Your task to perform on an android device: Open internet settings Image 0: 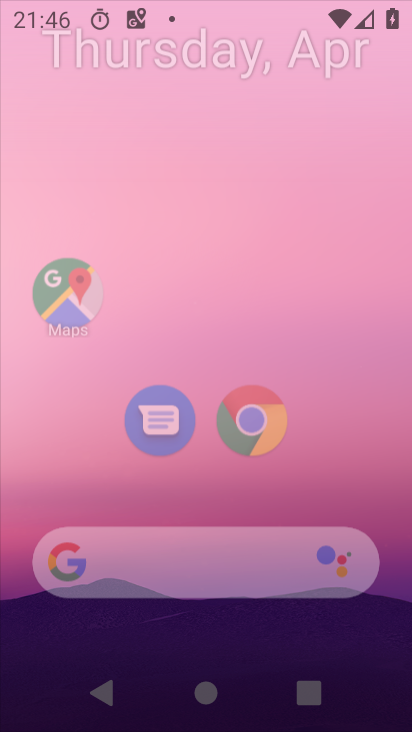
Step 0: drag from (199, 198) to (197, 20)
Your task to perform on an android device: Open internet settings Image 1: 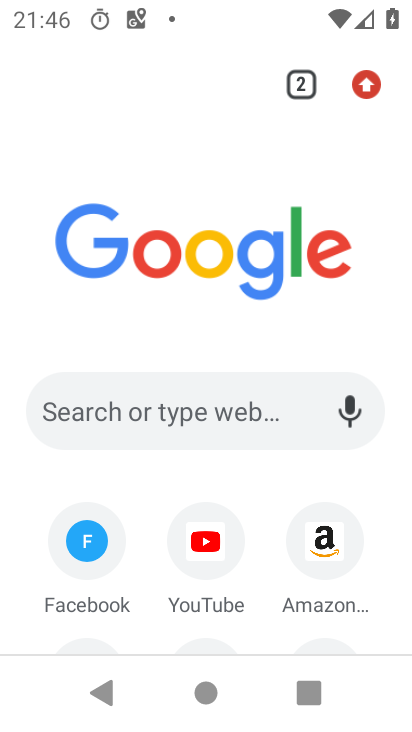
Step 1: press home button
Your task to perform on an android device: Open internet settings Image 2: 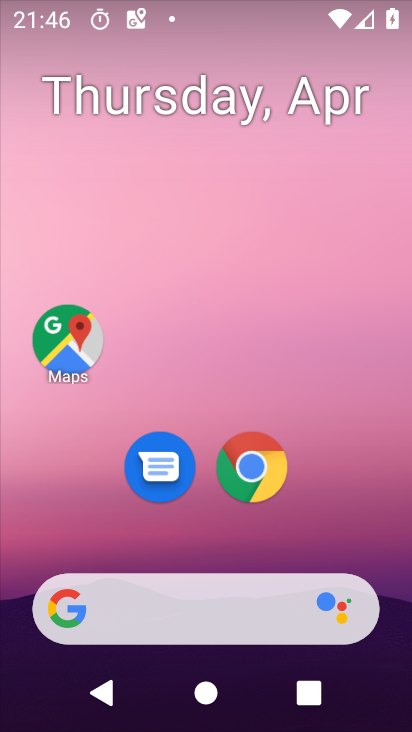
Step 2: drag from (223, 563) to (345, 48)
Your task to perform on an android device: Open internet settings Image 3: 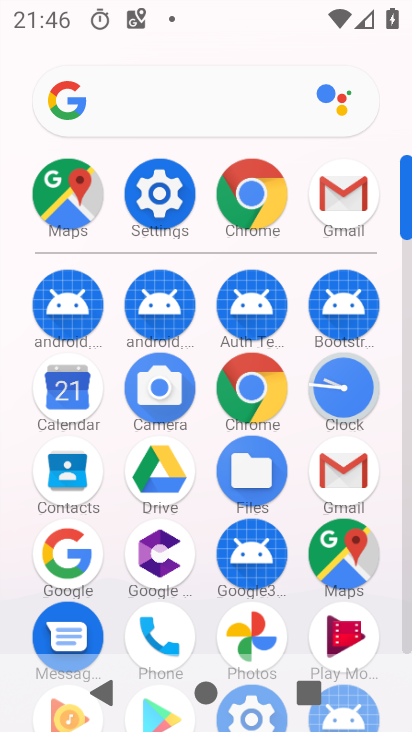
Step 3: click (145, 178)
Your task to perform on an android device: Open internet settings Image 4: 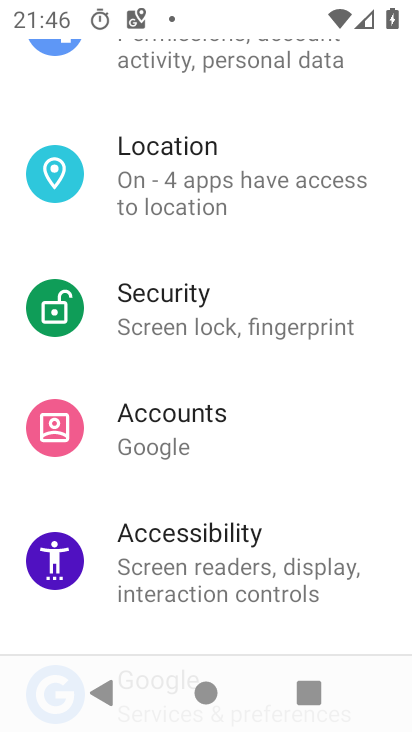
Step 4: drag from (198, 219) to (184, 434)
Your task to perform on an android device: Open internet settings Image 5: 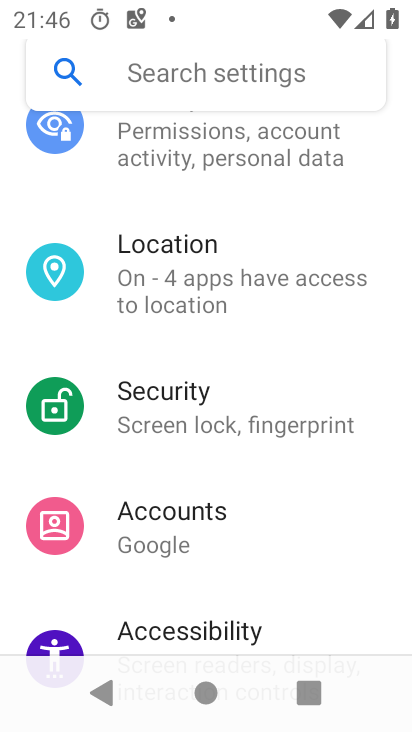
Step 5: drag from (239, 204) to (231, 626)
Your task to perform on an android device: Open internet settings Image 6: 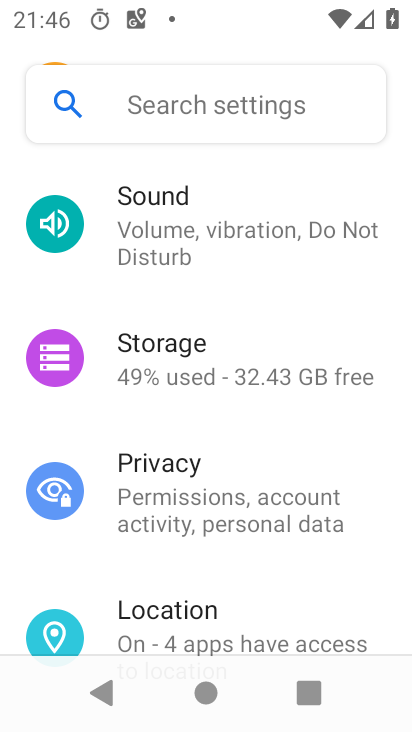
Step 6: drag from (251, 189) to (249, 637)
Your task to perform on an android device: Open internet settings Image 7: 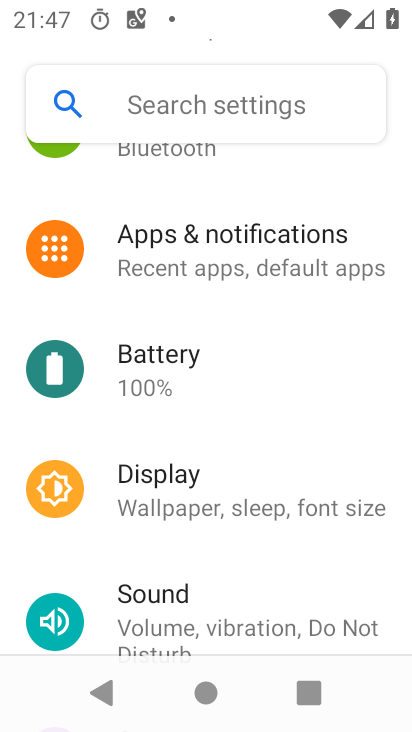
Step 7: drag from (249, 328) to (203, 731)
Your task to perform on an android device: Open internet settings Image 8: 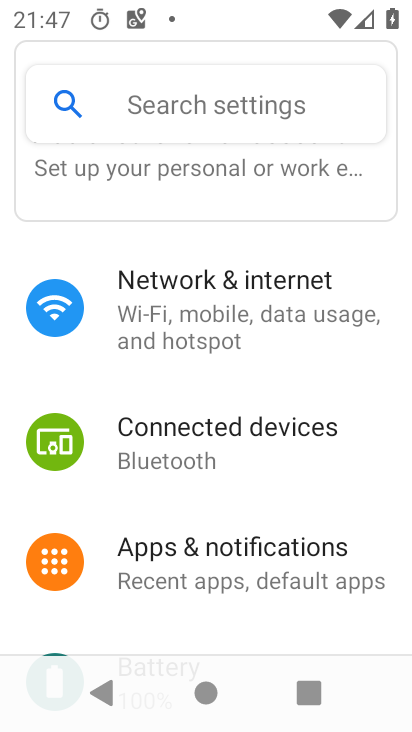
Step 8: click (207, 289)
Your task to perform on an android device: Open internet settings Image 9: 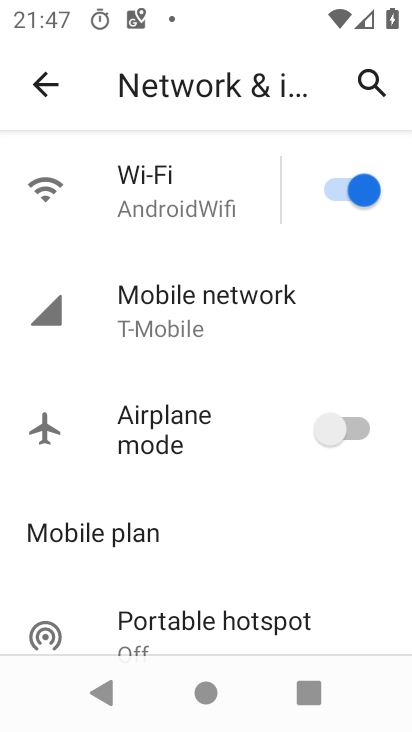
Step 9: click (157, 284)
Your task to perform on an android device: Open internet settings Image 10: 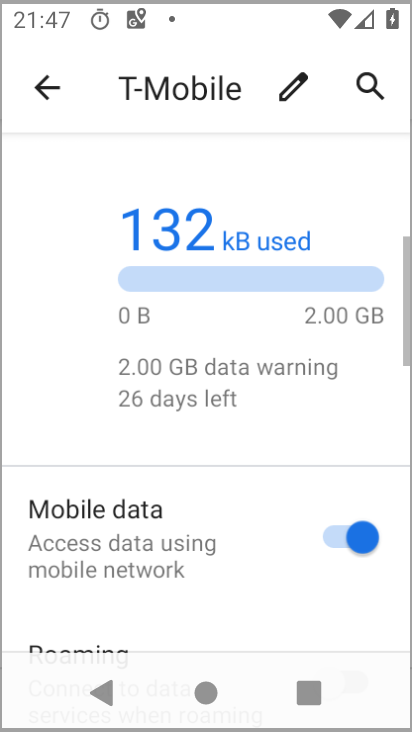
Step 10: task complete